Your task to perform on an android device: turn pop-ups off in chrome Image 0: 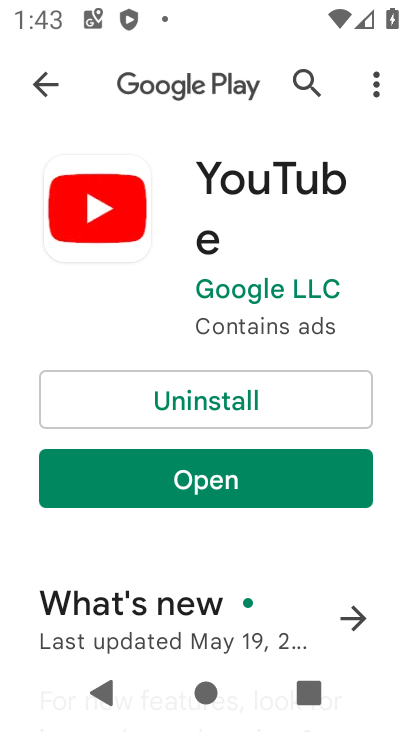
Step 0: press home button
Your task to perform on an android device: turn pop-ups off in chrome Image 1: 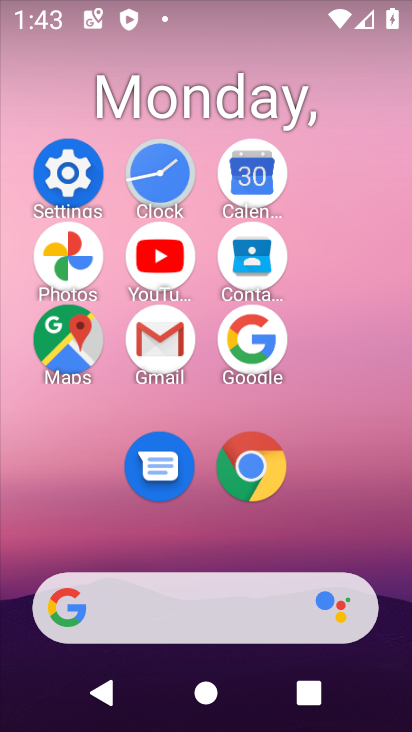
Step 1: click (269, 460)
Your task to perform on an android device: turn pop-ups off in chrome Image 2: 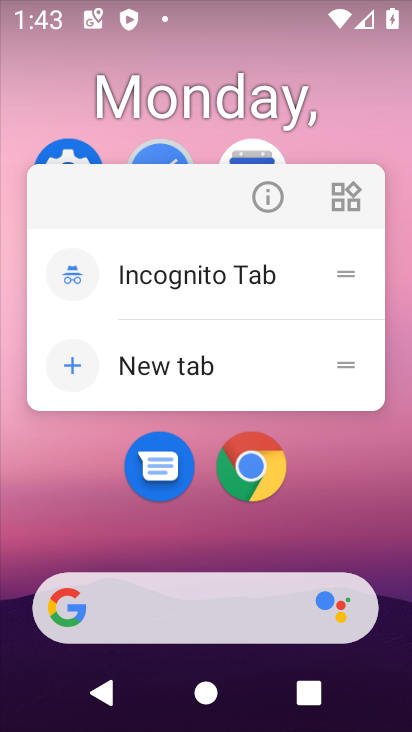
Step 2: click (267, 469)
Your task to perform on an android device: turn pop-ups off in chrome Image 3: 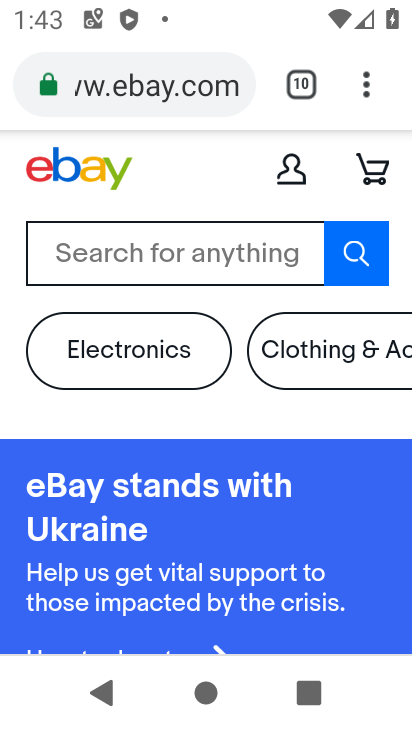
Step 3: click (355, 68)
Your task to perform on an android device: turn pop-ups off in chrome Image 4: 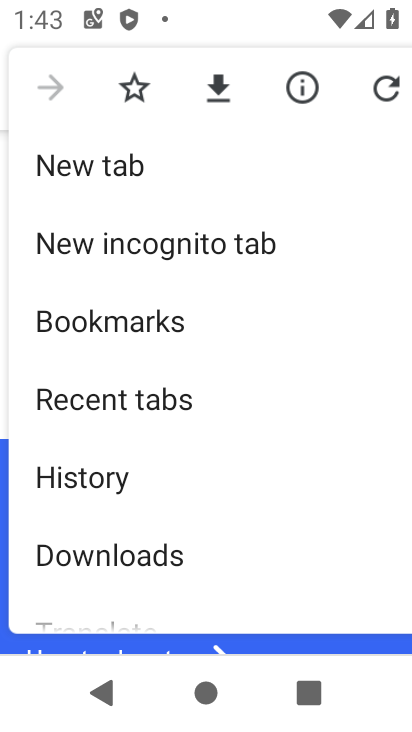
Step 4: drag from (218, 494) to (241, 133)
Your task to perform on an android device: turn pop-ups off in chrome Image 5: 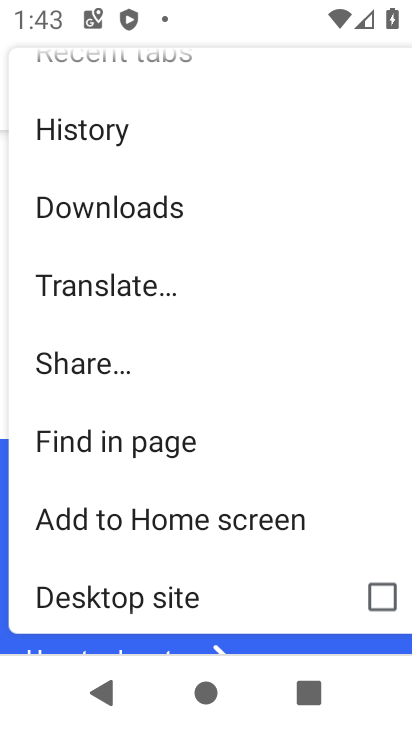
Step 5: drag from (182, 443) to (212, 169)
Your task to perform on an android device: turn pop-ups off in chrome Image 6: 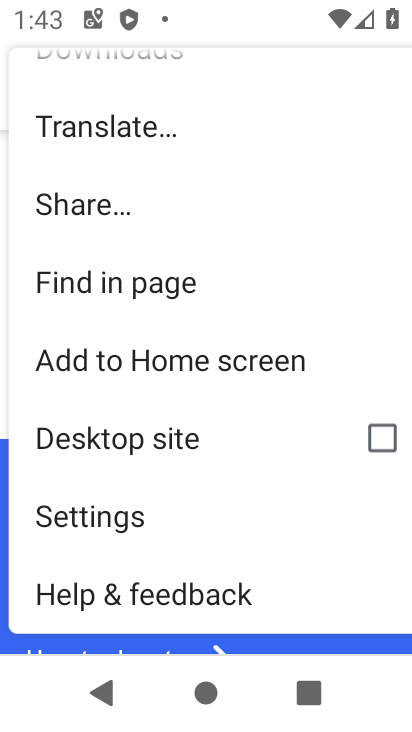
Step 6: click (230, 494)
Your task to perform on an android device: turn pop-ups off in chrome Image 7: 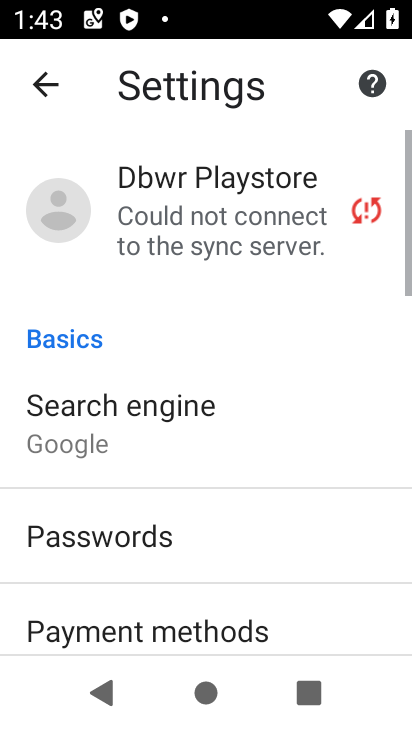
Step 7: drag from (230, 494) to (274, 167)
Your task to perform on an android device: turn pop-ups off in chrome Image 8: 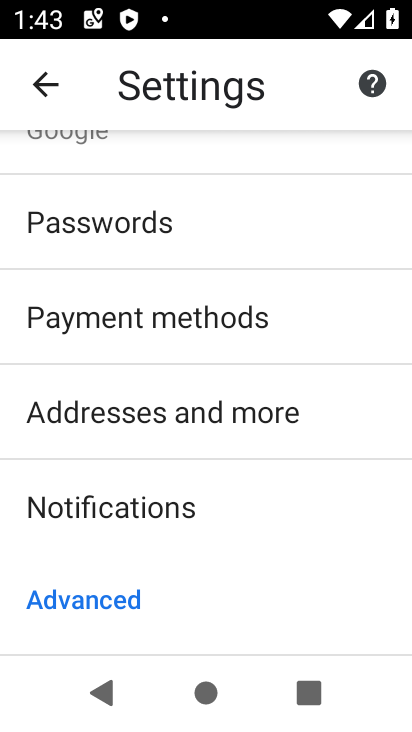
Step 8: drag from (222, 585) to (256, 234)
Your task to perform on an android device: turn pop-ups off in chrome Image 9: 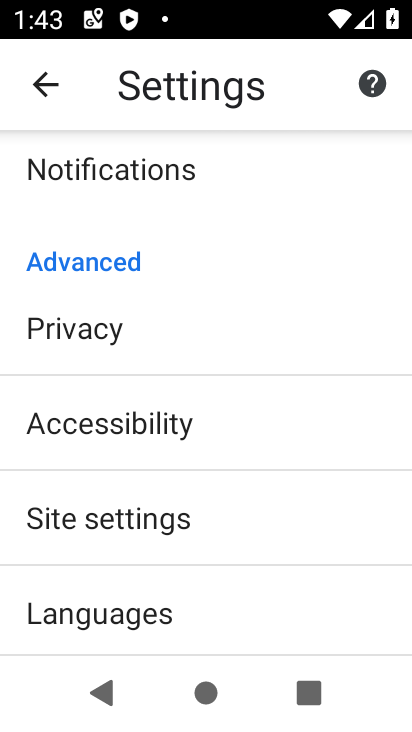
Step 9: drag from (232, 508) to (227, 242)
Your task to perform on an android device: turn pop-ups off in chrome Image 10: 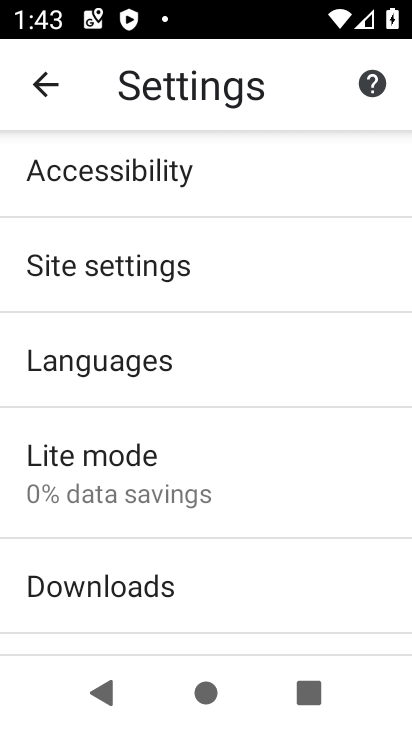
Step 10: drag from (206, 613) to (195, 252)
Your task to perform on an android device: turn pop-ups off in chrome Image 11: 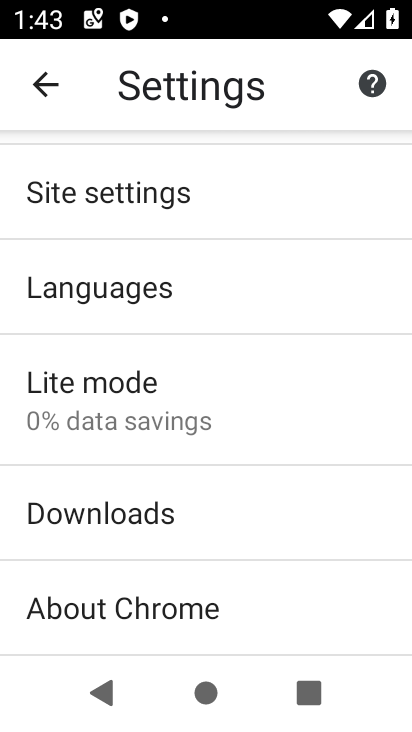
Step 11: drag from (225, 572) to (270, 164)
Your task to perform on an android device: turn pop-ups off in chrome Image 12: 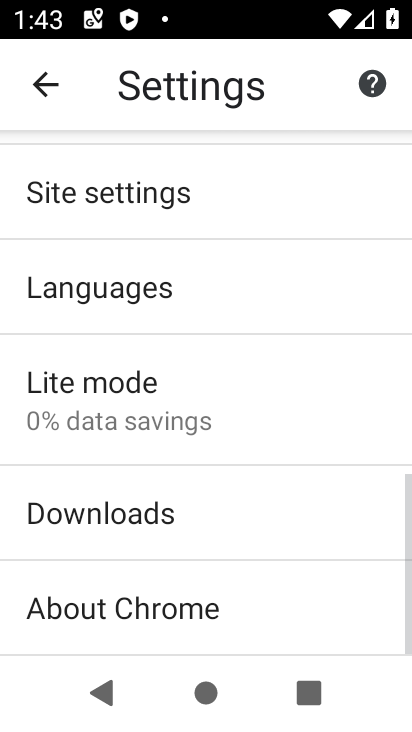
Step 12: click (253, 186)
Your task to perform on an android device: turn pop-ups off in chrome Image 13: 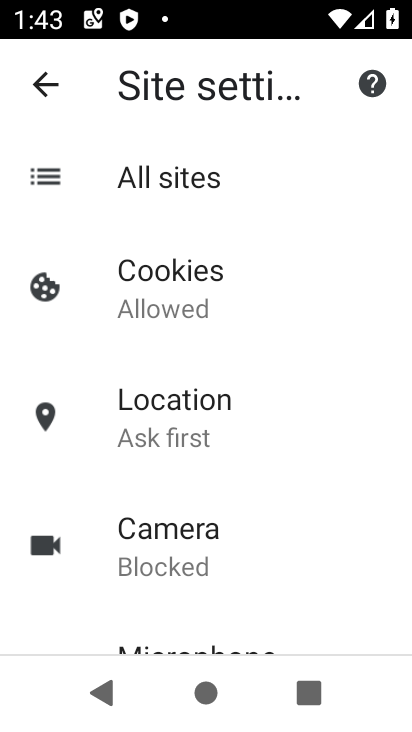
Step 13: drag from (235, 552) to (247, 172)
Your task to perform on an android device: turn pop-ups off in chrome Image 14: 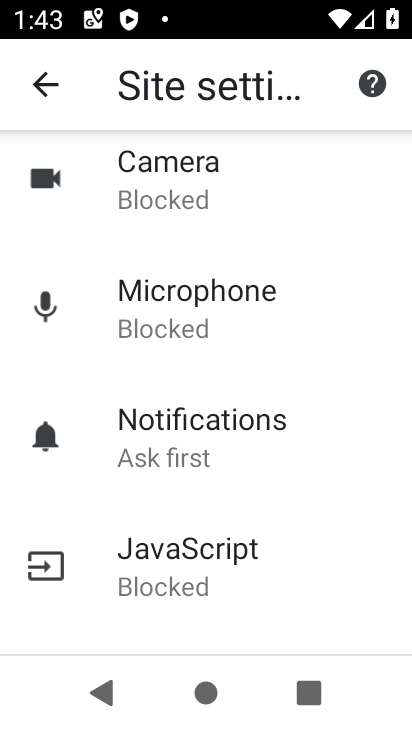
Step 14: drag from (308, 495) to (279, 180)
Your task to perform on an android device: turn pop-ups off in chrome Image 15: 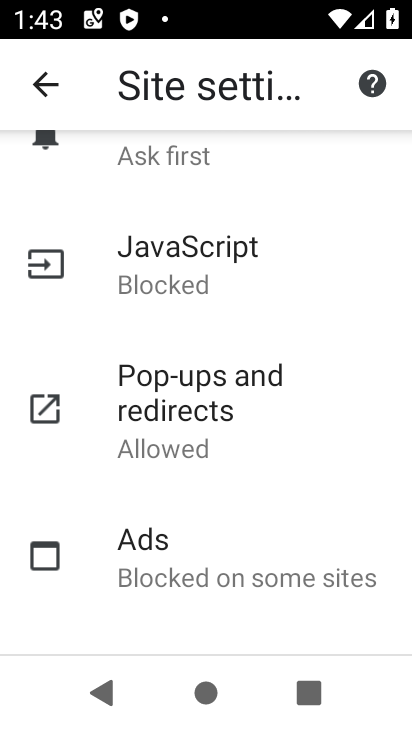
Step 15: click (307, 401)
Your task to perform on an android device: turn pop-ups off in chrome Image 16: 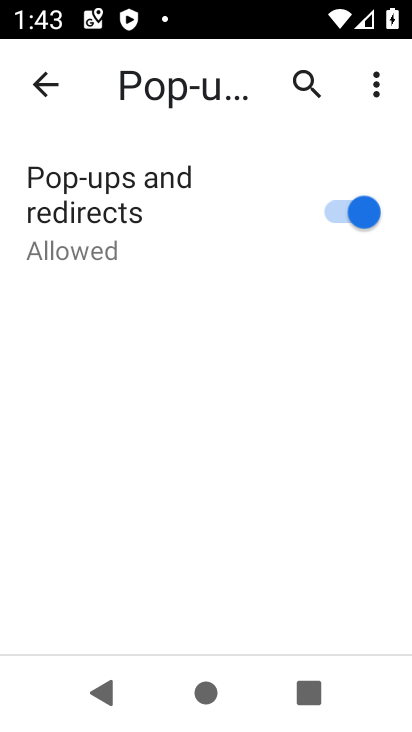
Step 16: click (345, 212)
Your task to perform on an android device: turn pop-ups off in chrome Image 17: 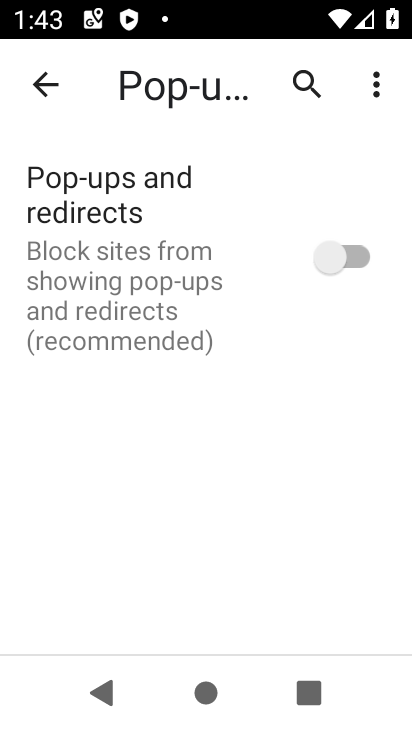
Step 17: task complete